Your task to perform on an android device: Add usb-c to usb-a to the cart on costco, then select checkout. Image 0: 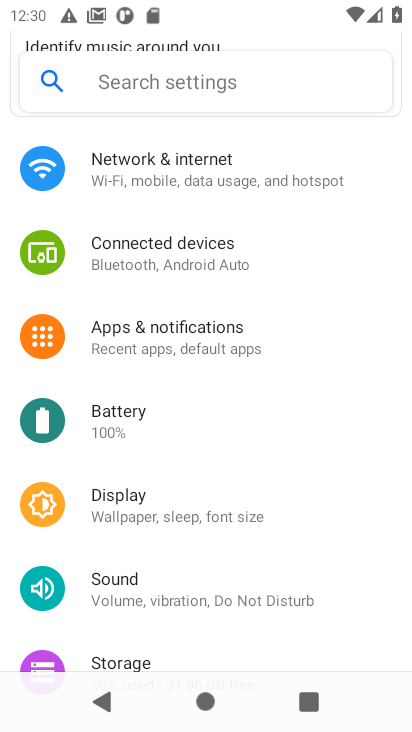
Step 0: press home button
Your task to perform on an android device: Add usb-c to usb-a to the cart on costco, then select checkout. Image 1: 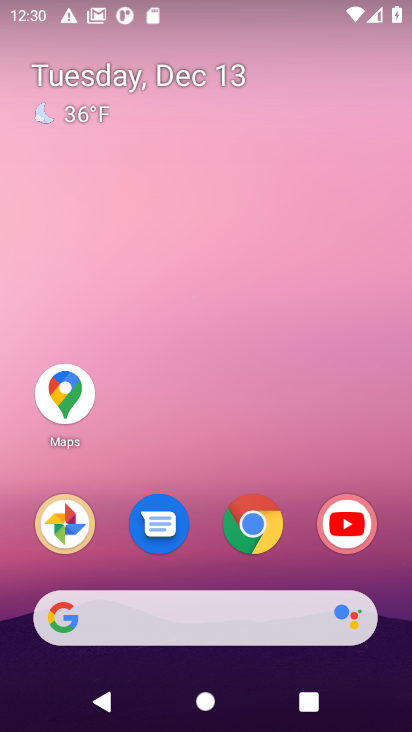
Step 1: click (260, 533)
Your task to perform on an android device: Add usb-c to usb-a to the cart on costco, then select checkout. Image 2: 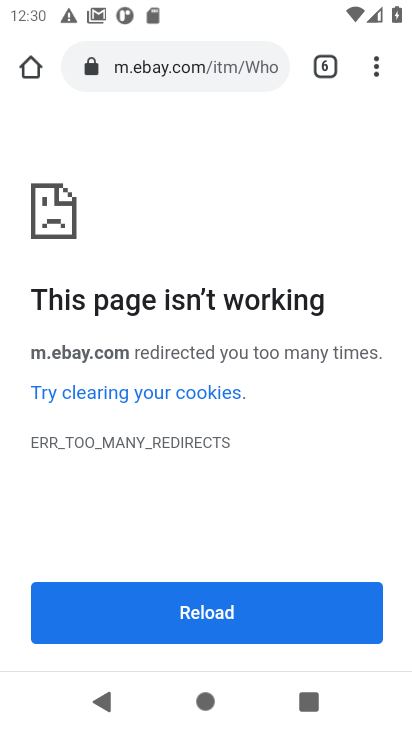
Step 2: click (173, 68)
Your task to perform on an android device: Add usb-c to usb-a to the cart on costco, then select checkout. Image 3: 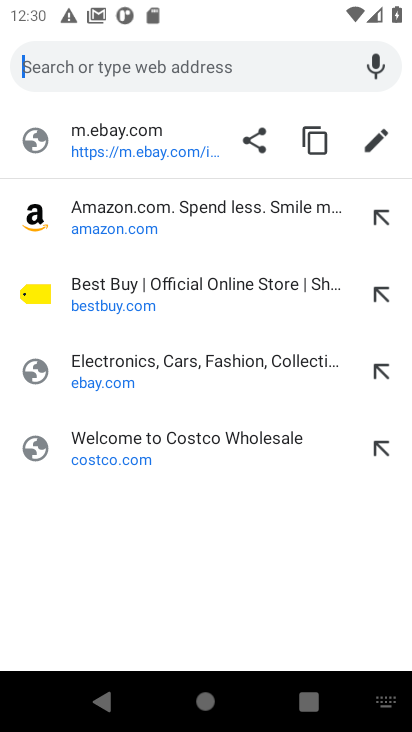
Step 3: click (90, 454)
Your task to perform on an android device: Add usb-c to usb-a to the cart on costco, then select checkout. Image 4: 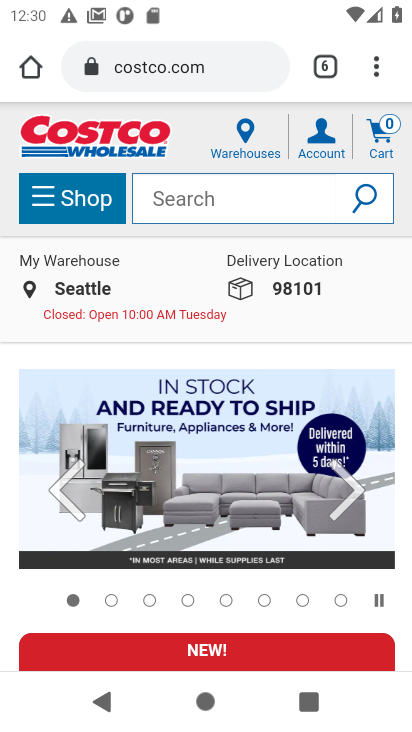
Step 4: click (188, 204)
Your task to perform on an android device: Add usb-c to usb-a to the cart on costco, then select checkout. Image 5: 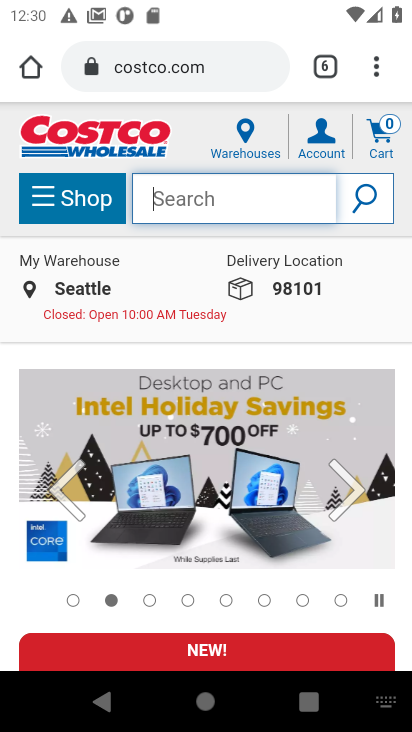
Step 5: type "usb-c to usb-a"
Your task to perform on an android device: Add usb-c to usb-a to the cart on costco, then select checkout. Image 6: 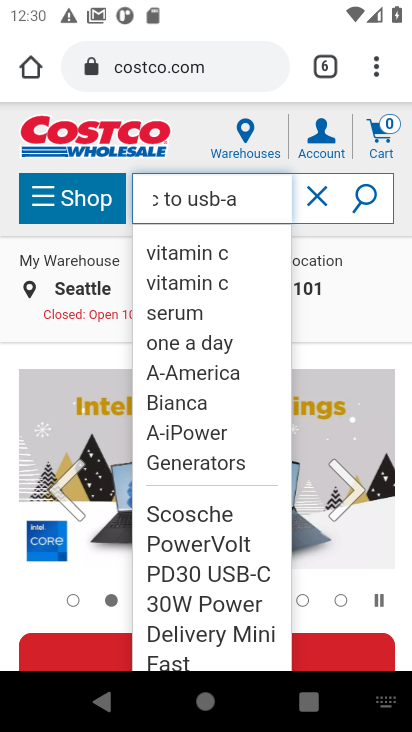
Step 6: click (367, 196)
Your task to perform on an android device: Add usb-c to usb-a to the cart on costco, then select checkout. Image 7: 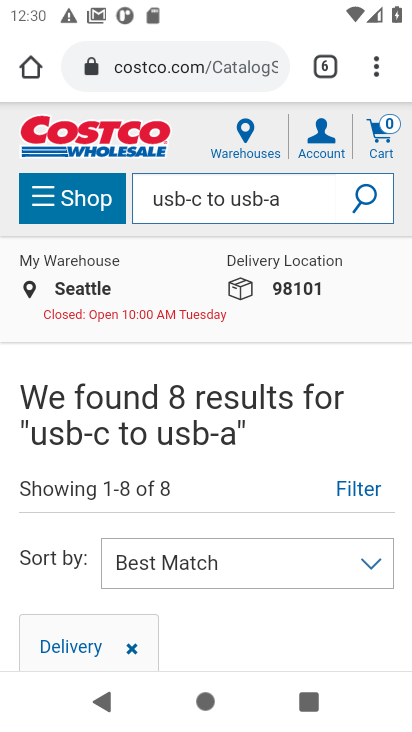
Step 7: task complete